Your task to perform on an android device: change the clock display to digital Image 0: 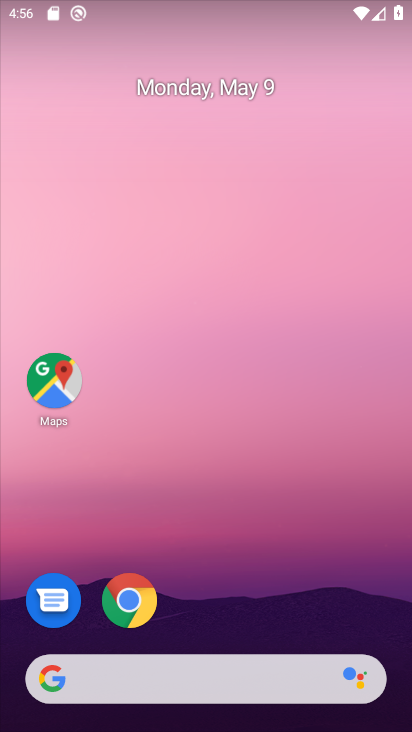
Step 0: drag from (274, 631) to (252, 144)
Your task to perform on an android device: change the clock display to digital Image 1: 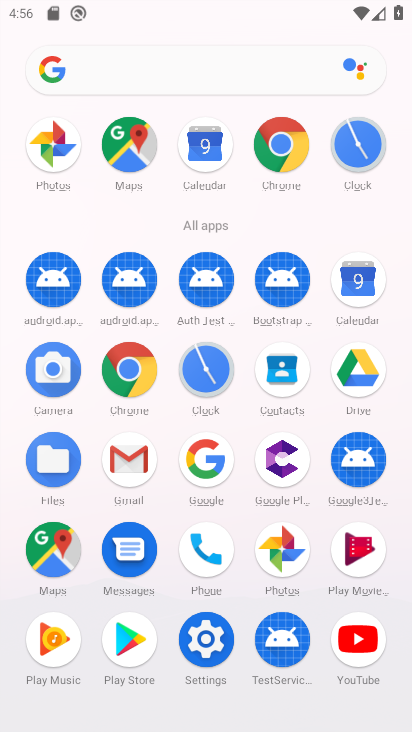
Step 1: click (204, 363)
Your task to perform on an android device: change the clock display to digital Image 2: 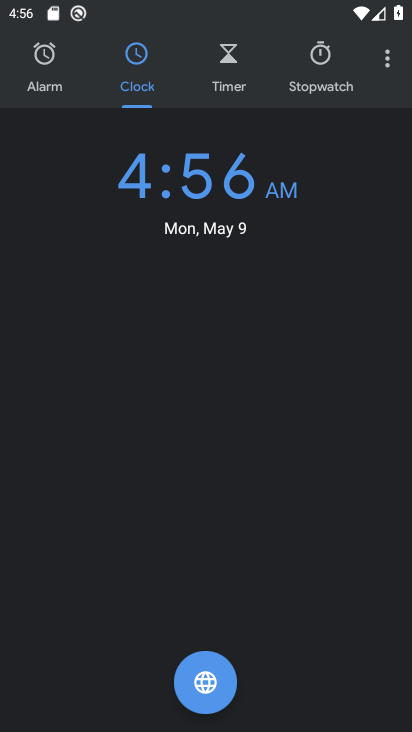
Step 2: click (386, 56)
Your task to perform on an android device: change the clock display to digital Image 3: 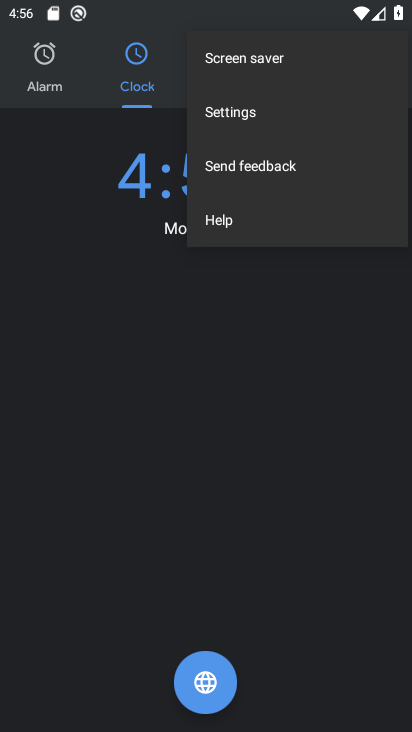
Step 3: click (284, 115)
Your task to perform on an android device: change the clock display to digital Image 4: 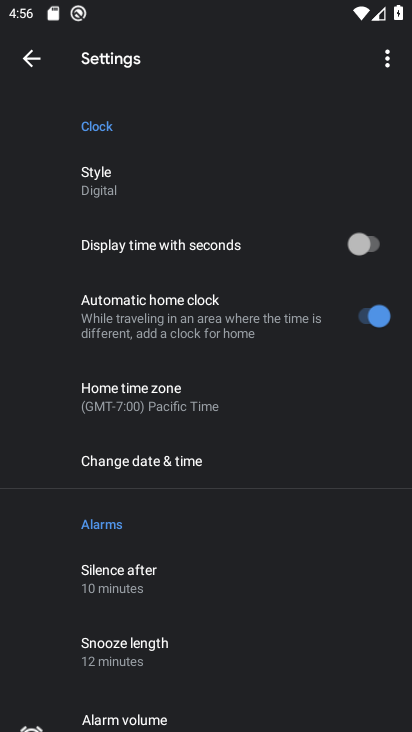
Step 4: task complete